Your task to perform on an android device: turn notification dots off Image 0: 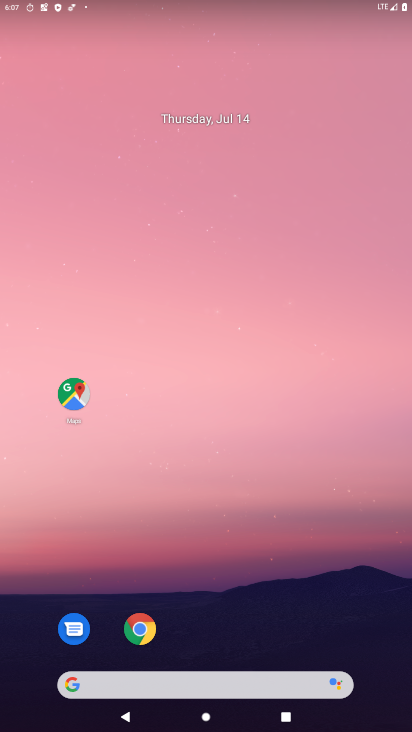
Step 0: drag from (225, 635) to (224, 27)
Your task to perform on an android device: turn notification dots off Image 1: 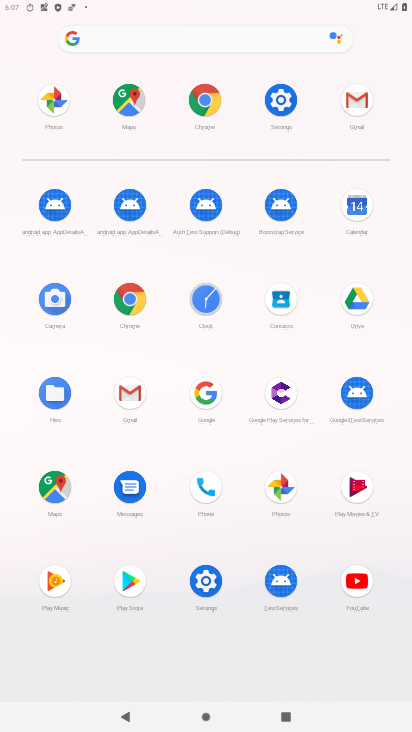
Step 1: click (281, 93)
Your task to perform on an android device: turn notification dots off Image 2: 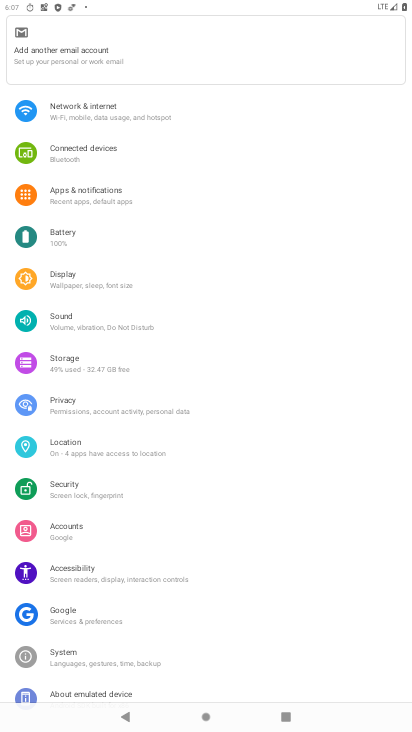
Step 2: click (105, 200)
Your task to perform on an android device: turn notification dots off Image 3: 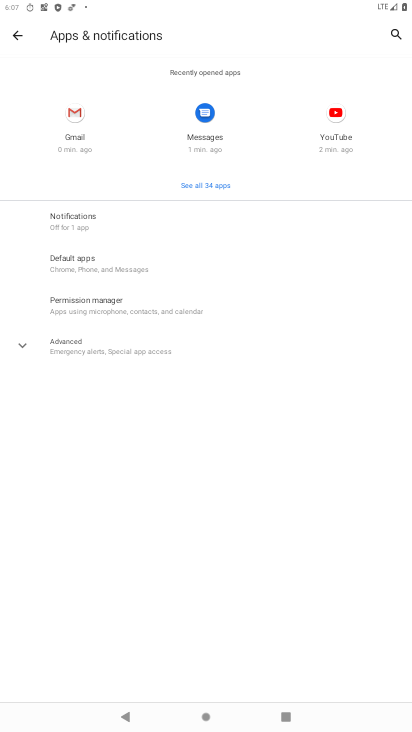
Step 3: click (109, 220)
Your task to perform on an android device: turn notification dots off Image 4: 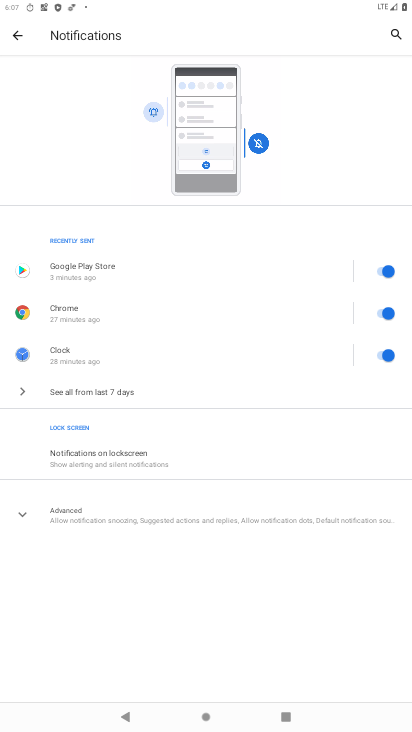
Step 4: click (120, 510)
Your task to perform on an android device: turn notification dots off Image 5: 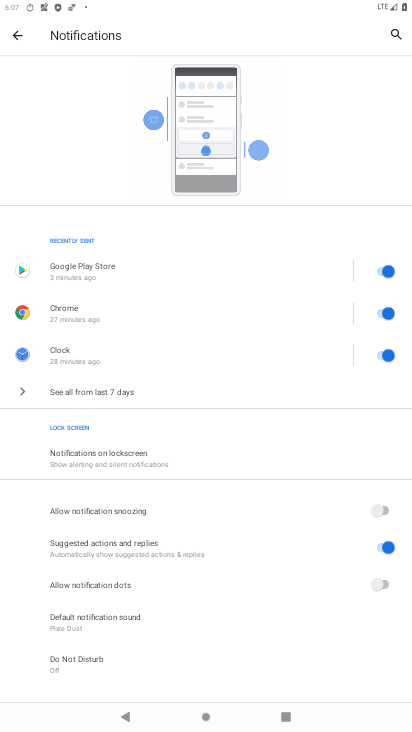
Step 5: task complete